Your task to perform on an android device: What's the weather going to be tomorrow? Image 0: 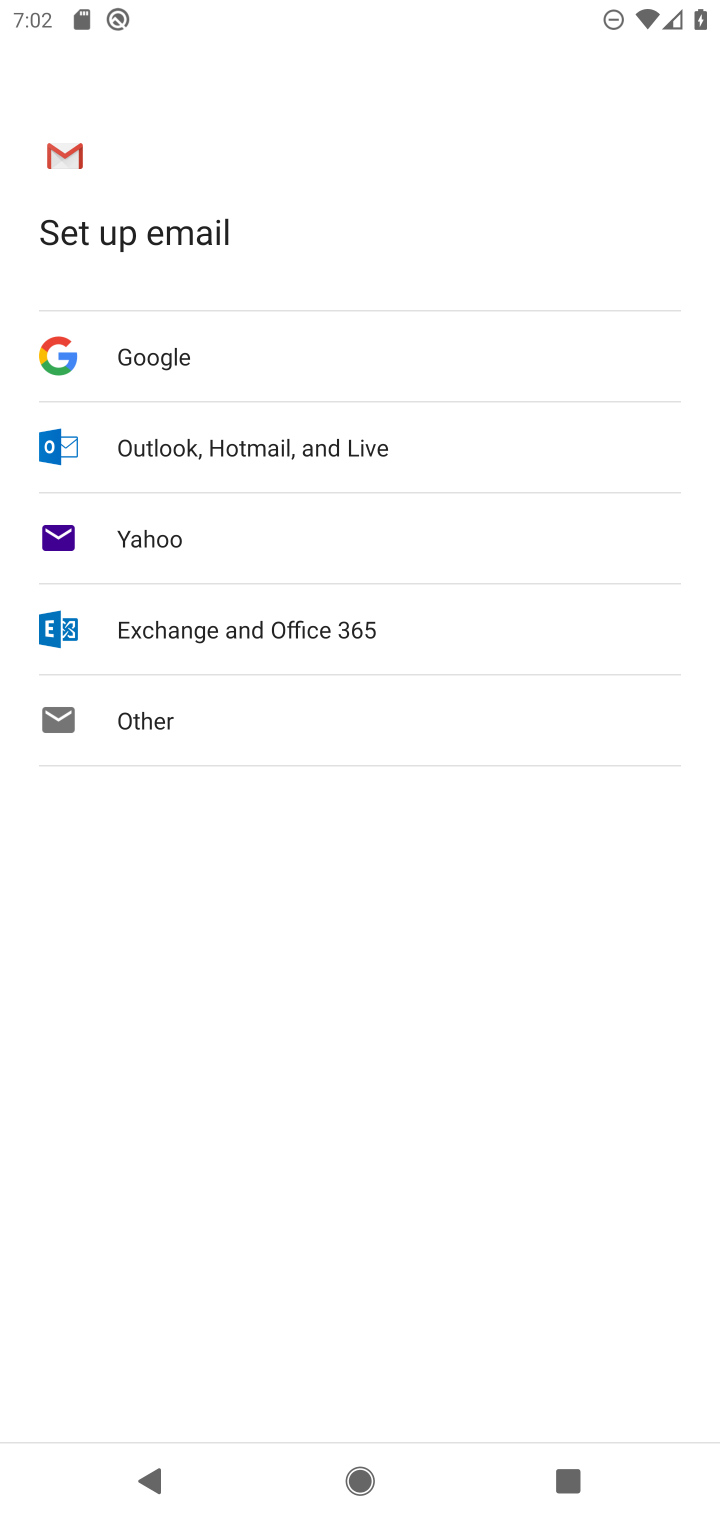
Step 0: press home button
Your task to perform on an android device: What's the weather going to be tomorrow? Image 1: 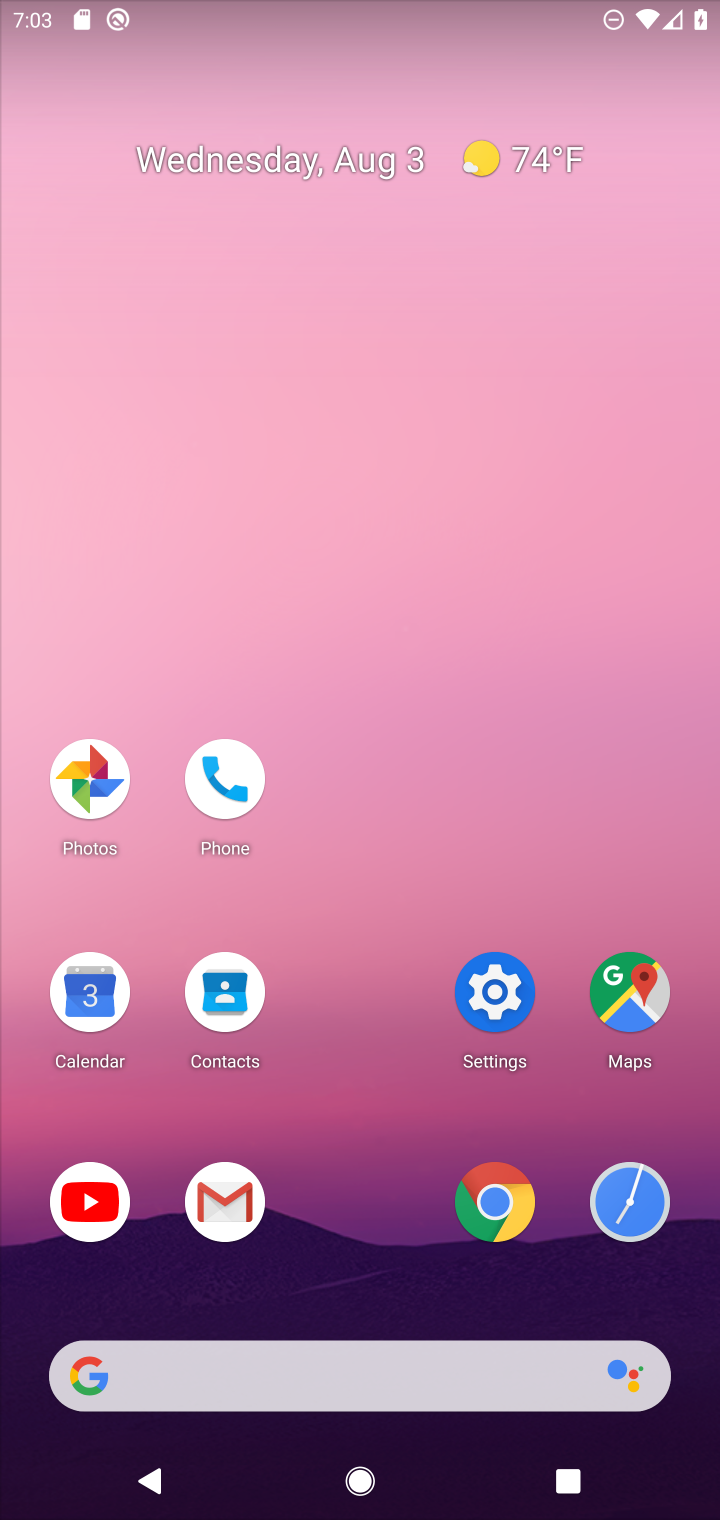
Step 1: click (312, 1366)
Your task to perform on an android device: What's the weather going to be tomorrow? Image 2: 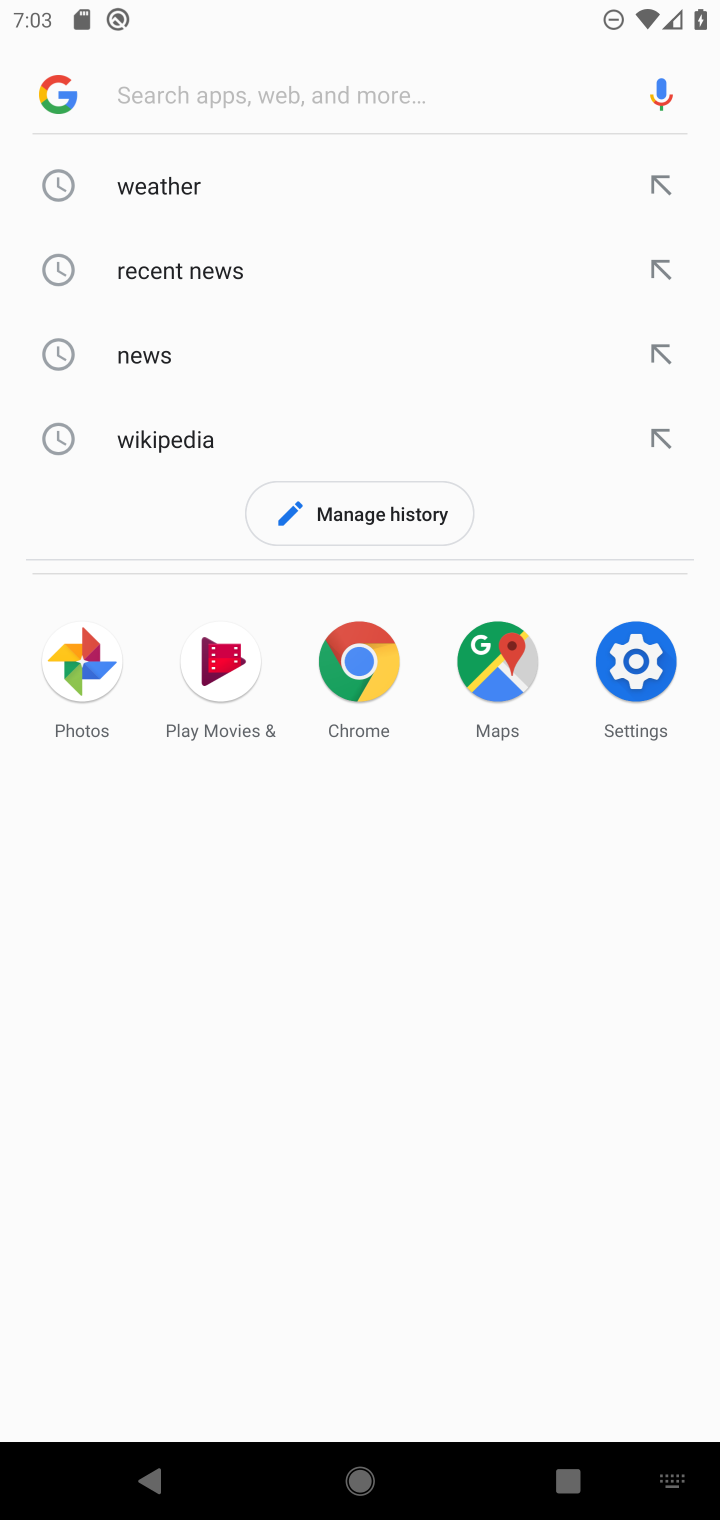
Step 2: click (167, 178)
Your task to perform on an android device: What's the weather going to be tomorrow? Image 3: 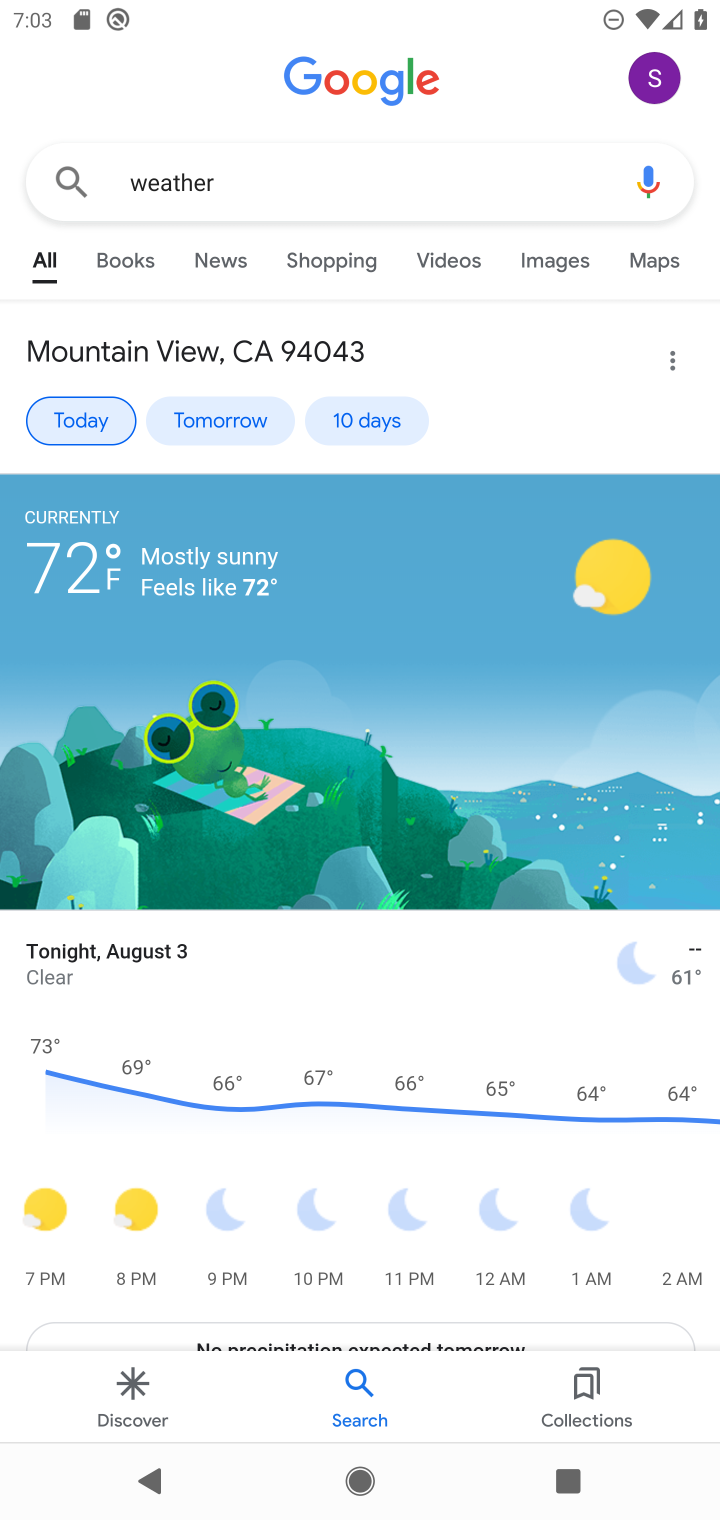
Step 3: click (234, 417)
Your task to perform on an android device: What's the weather going to be tomorrow? Image 4: 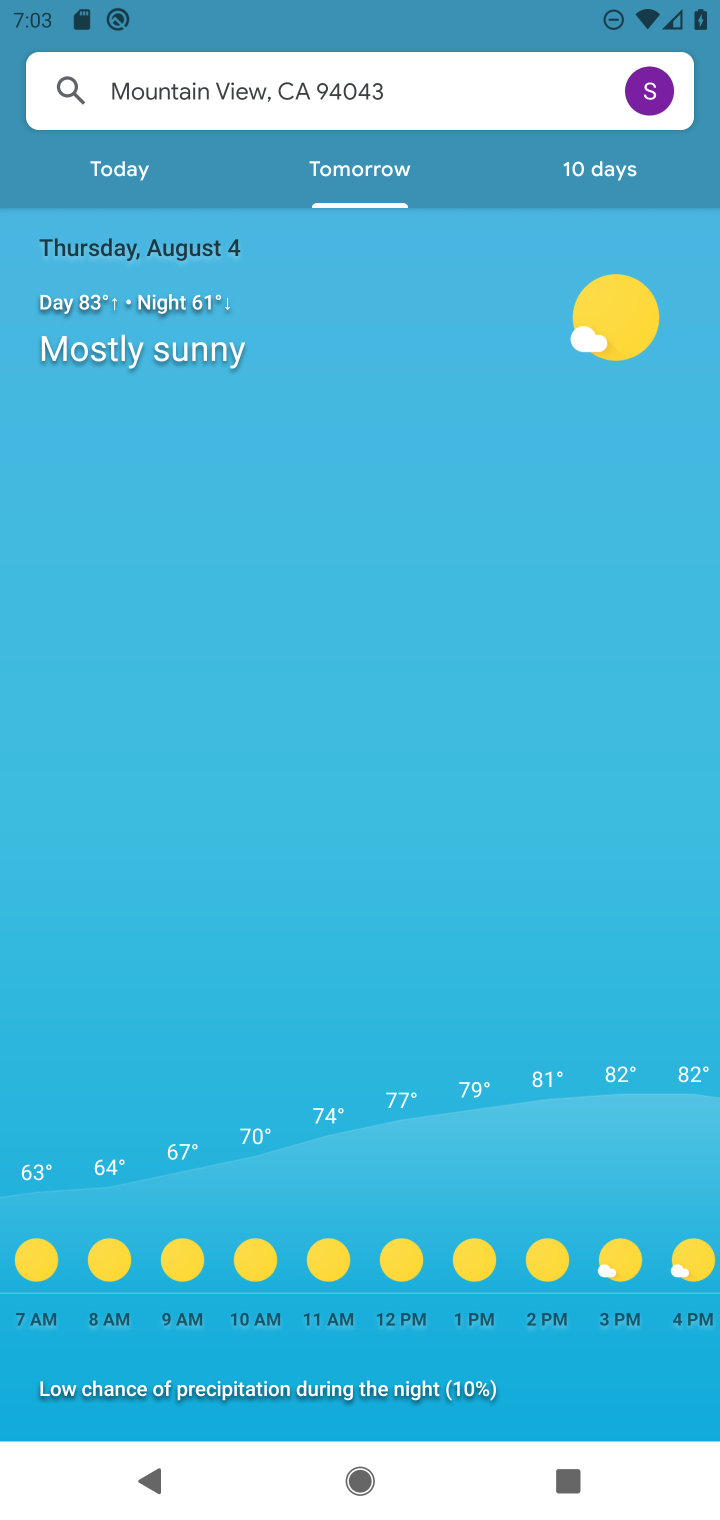
Step 4: task complete